Your task to perform on an android device: open app "Truecaller" Image 0: 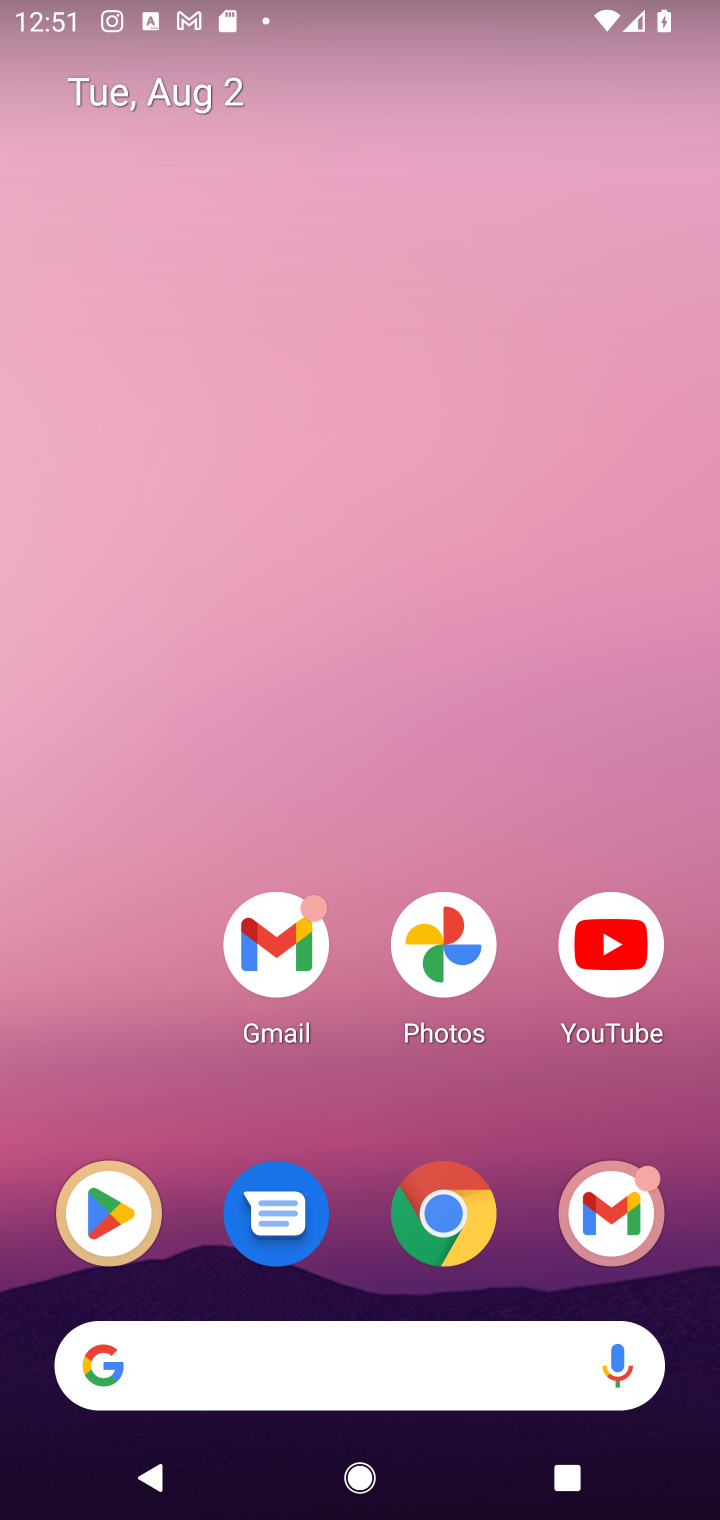
Step 0: click (104, 1233)
Your task to perform on an android device: open app "Truecaller" Image 1: 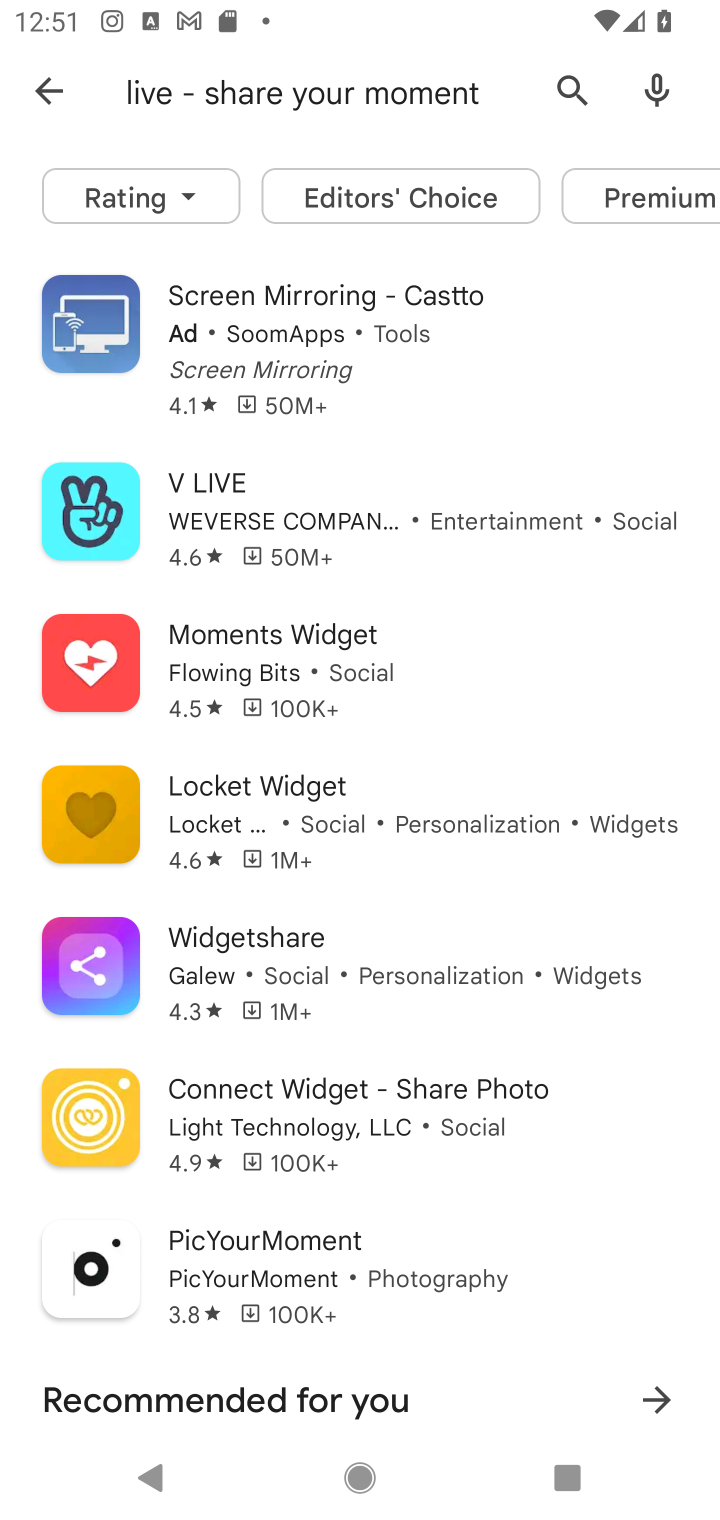
Step 1: click (49, 92)
Your task to perform on an android device: open app "Truecaller" Image 2: 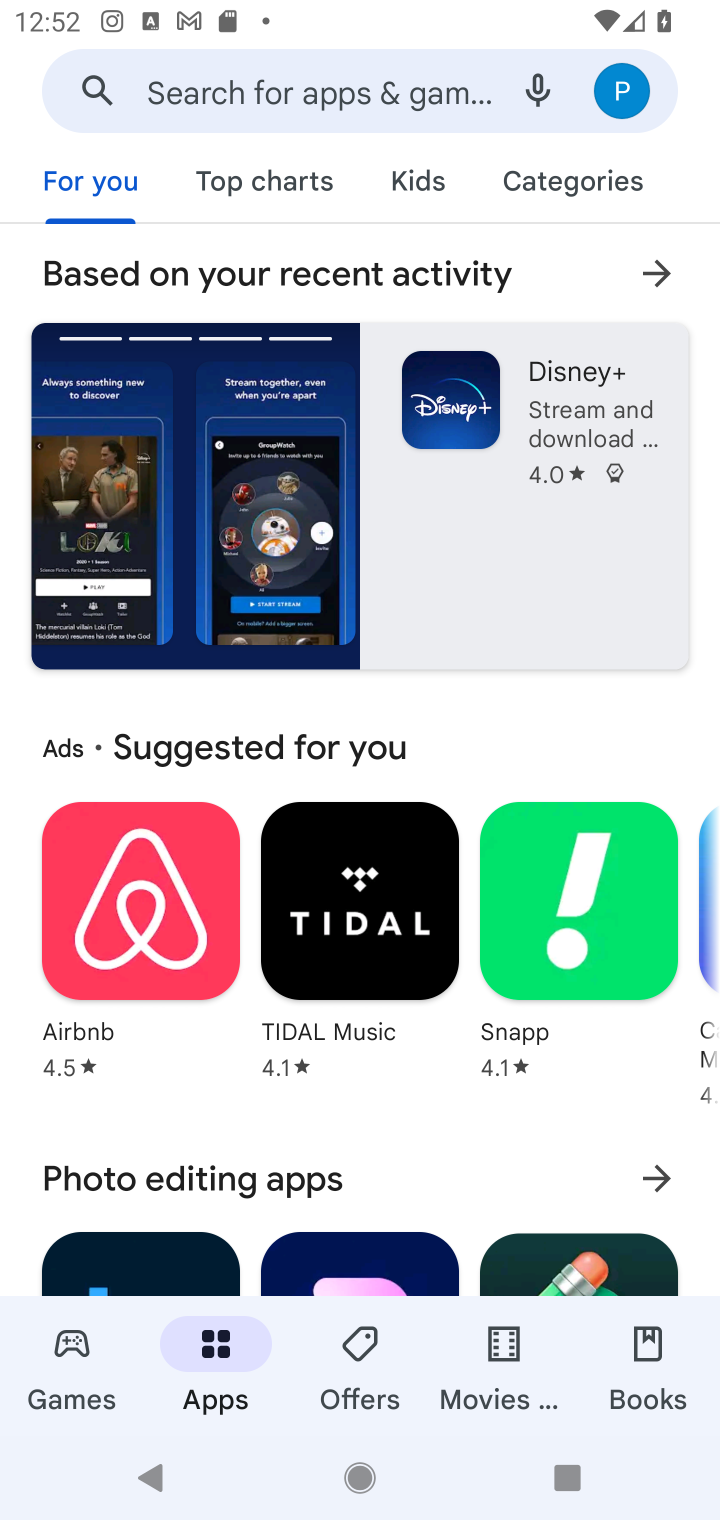
Step 2: click (251, 98)
Your task to perform on an android device: open app "Truecaller" Image 3: 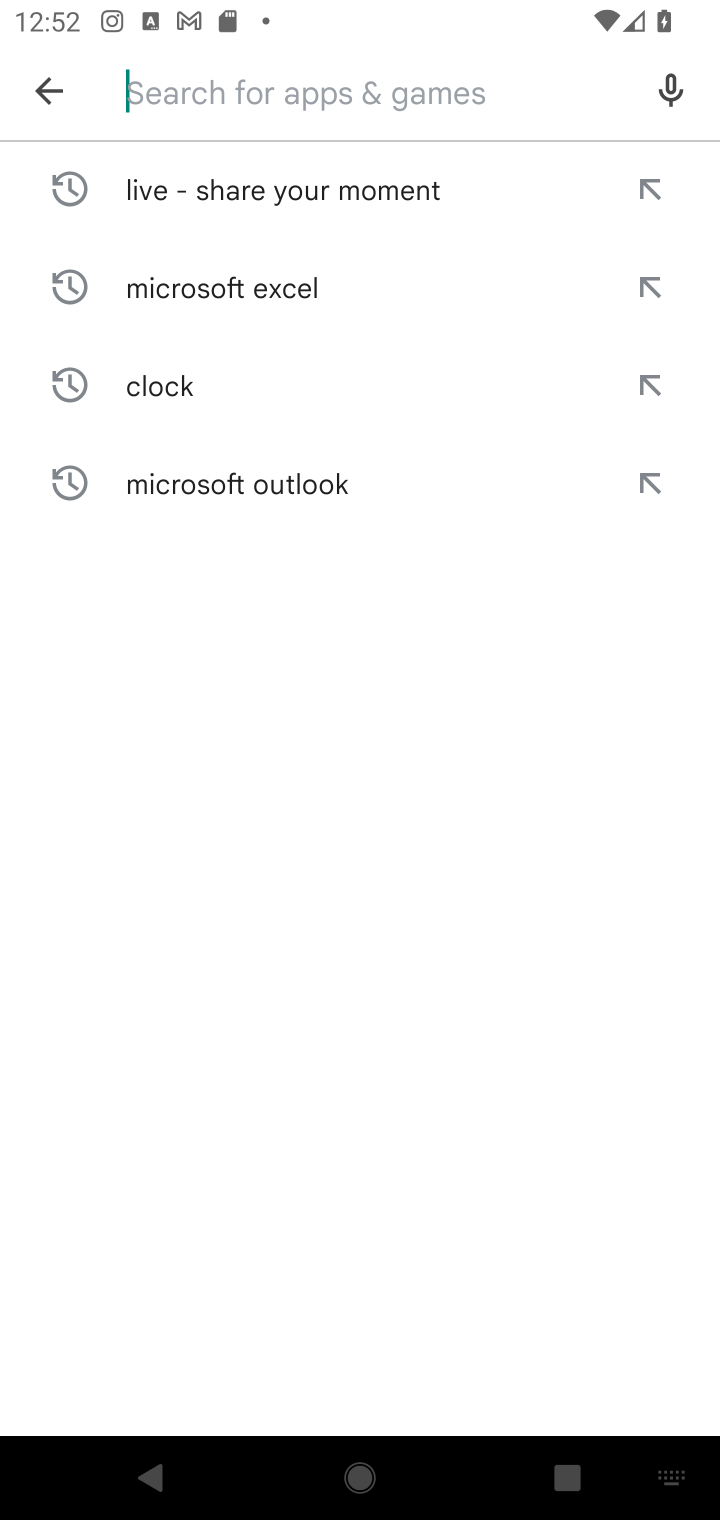
Step 3: type "Truecaller"
Your task to perform on an android device: open app "Truecaller" Image 4: 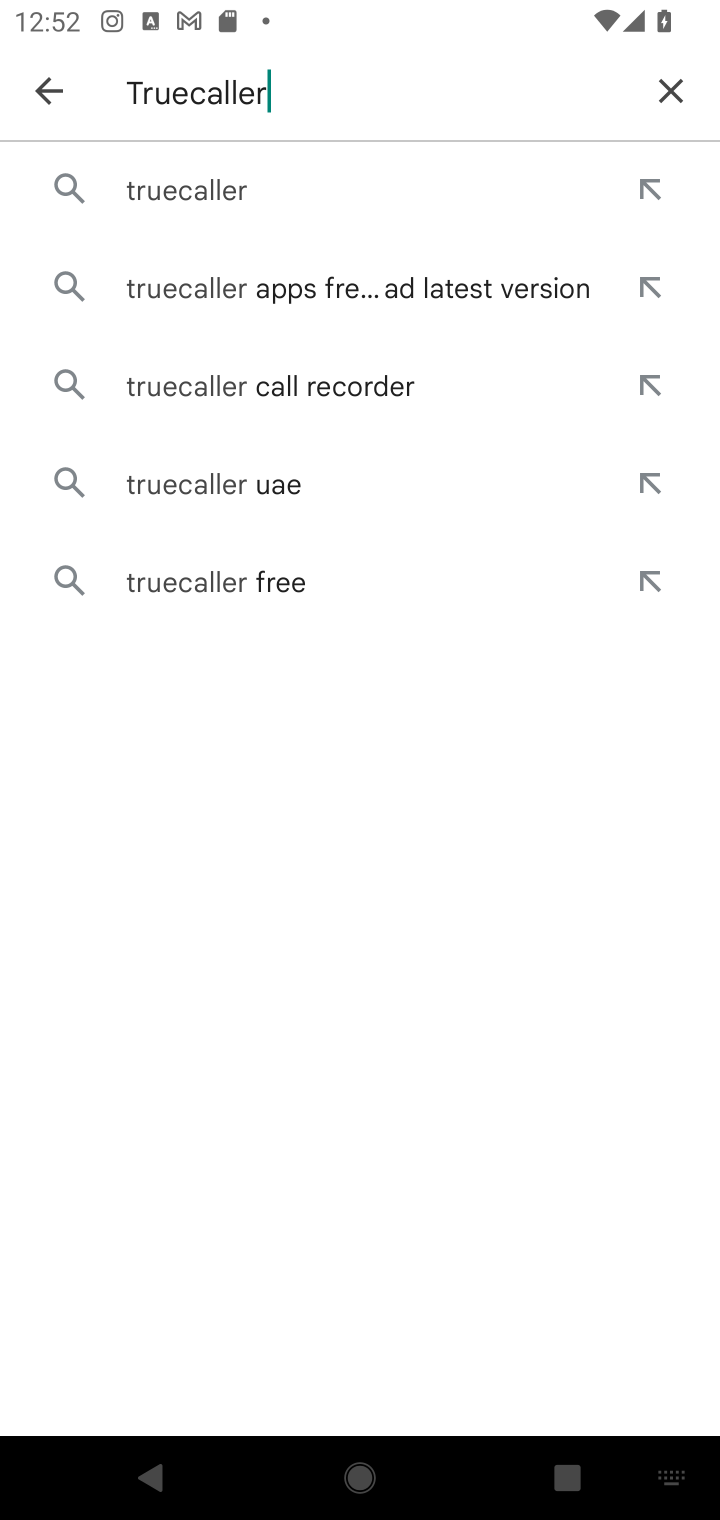
Step 4: click (168, 206)
Your task to perform on an android device: open app "Truecaller" Image 5: 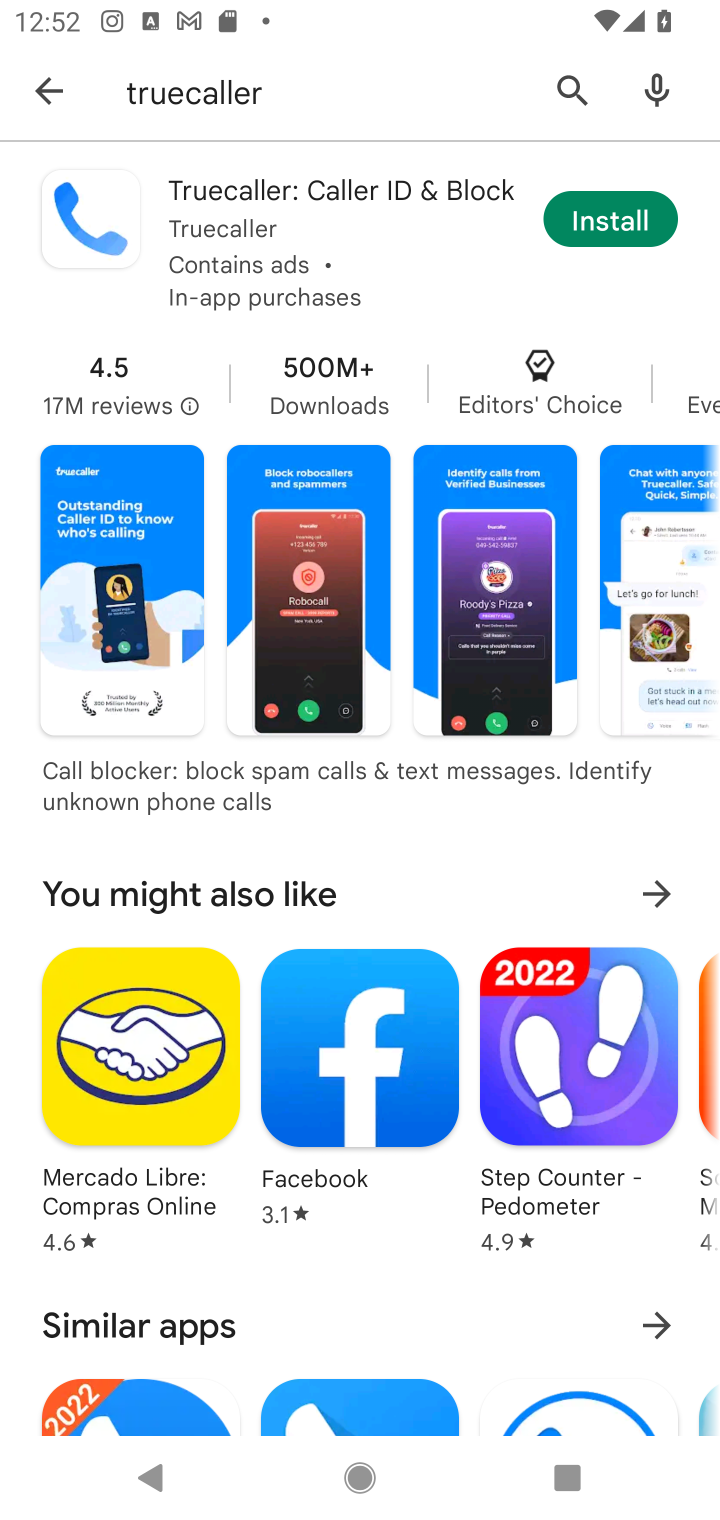
Step 5: click (592, 205)
Your task to perform on an android device: open app "Truecaller" Image 6: 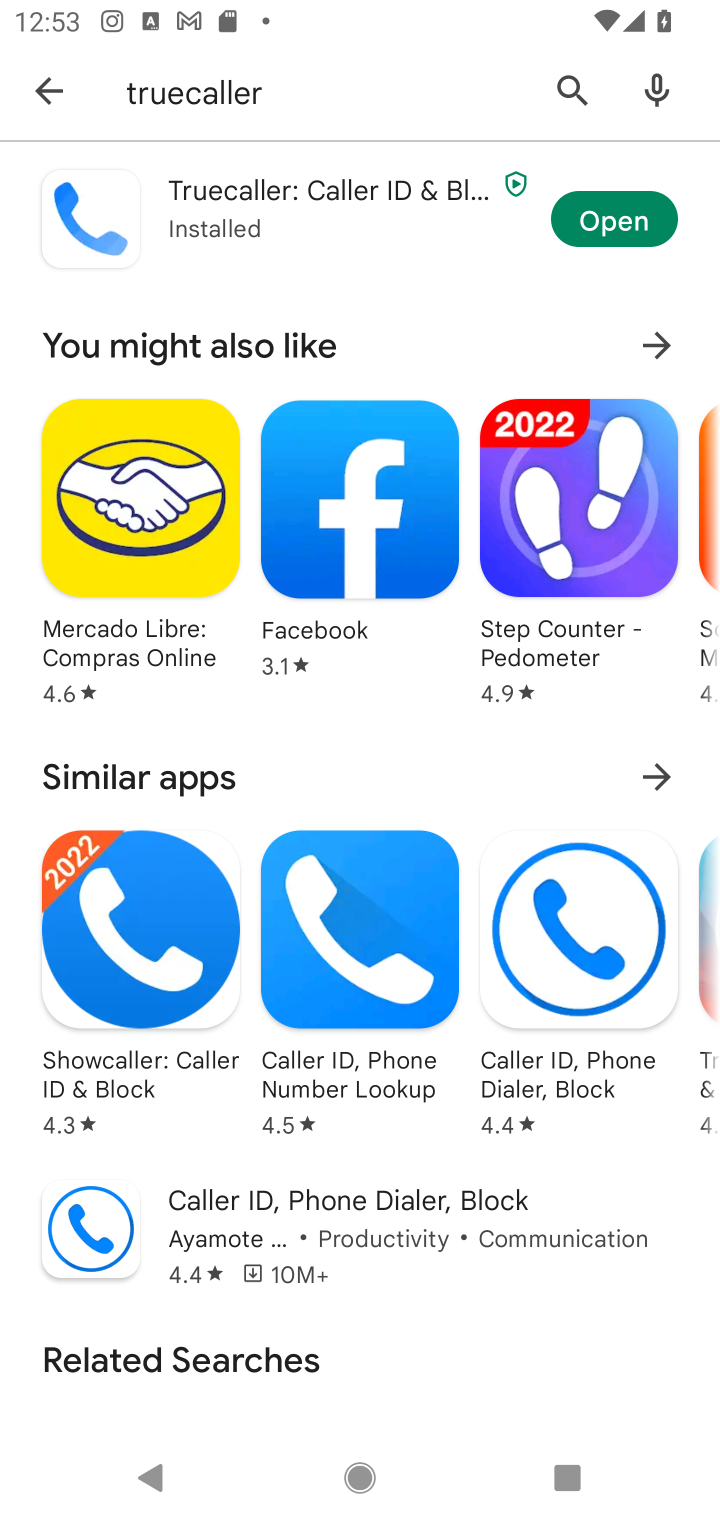
Step 6: click (656, 213)
Your task to perform on an android device: open app "Truecaller" Image 7: 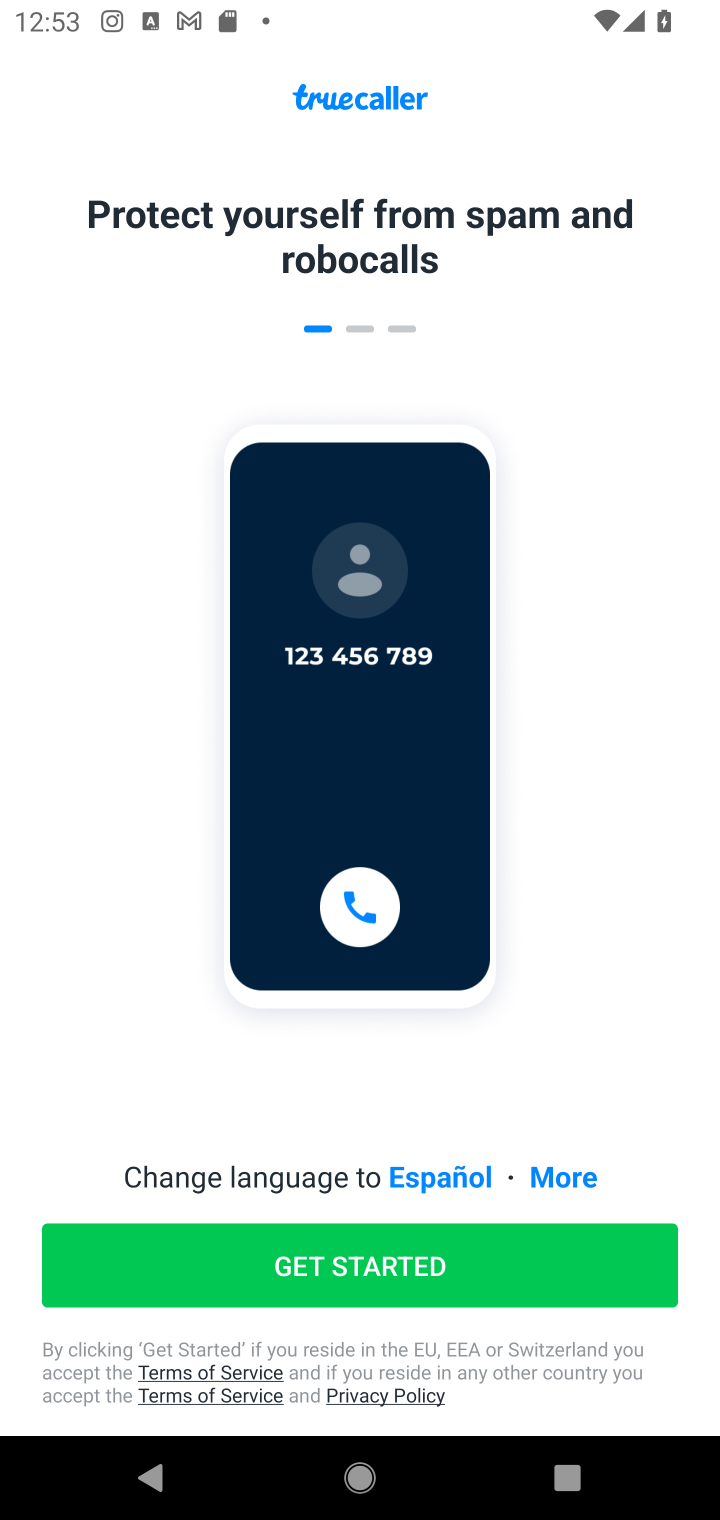
Step 7: task complete